Your task to perform on an android device: visit the assistant section in the google photos Image 0: 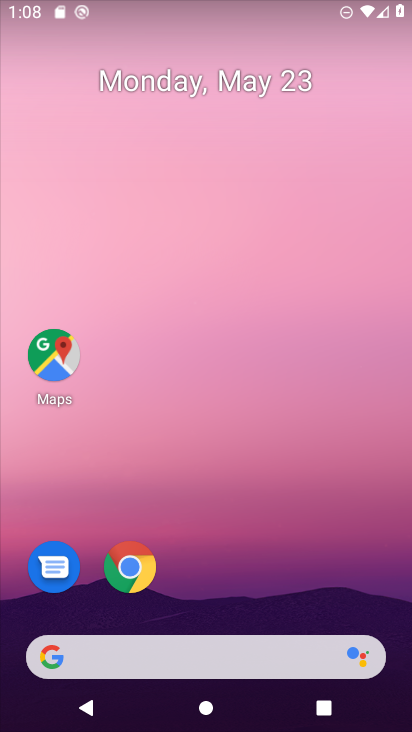
Step 0: press home button
Your task to perform on an android device: visit the assistant section in the google photos Image 1: 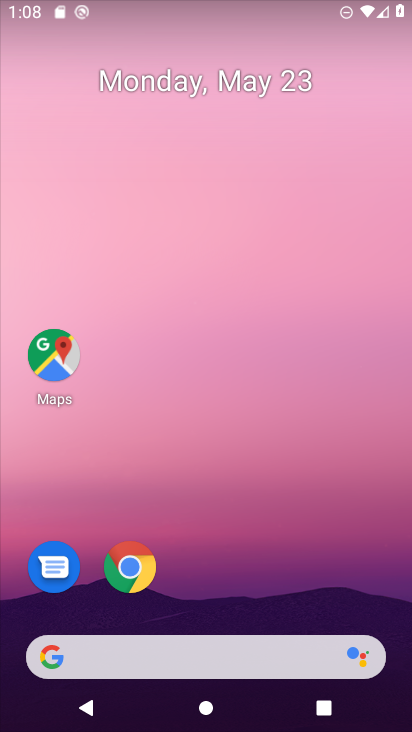
Step 1: drag from (278, 592) to (351, 82)
Your task to perform on an android device: visit the assistant section in the google photos Image 2: 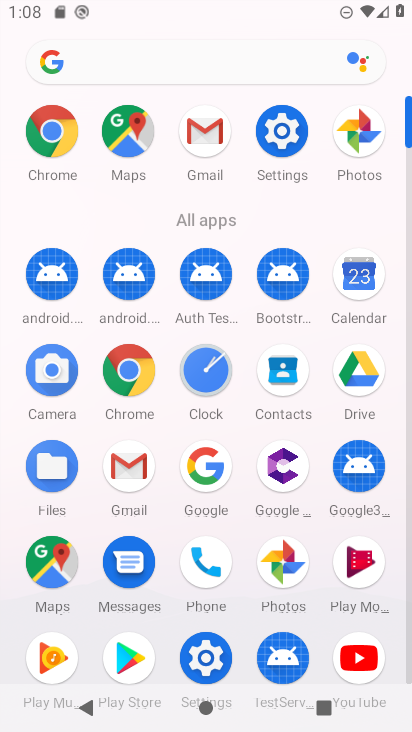
Step 2: click (359, 134)
Your task to perform on an android device: visit the assistant section in the google photos Image 3: 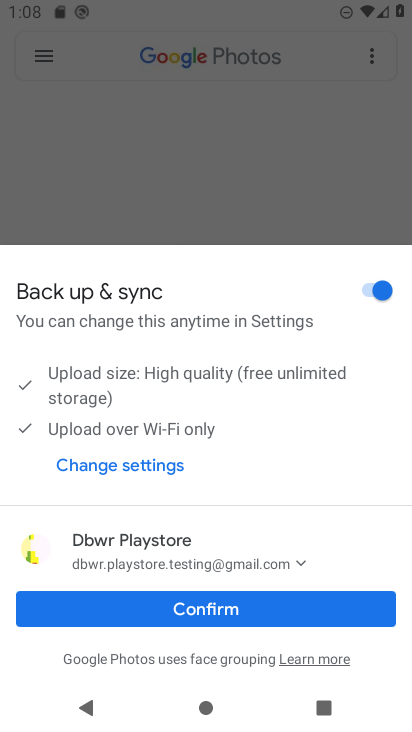
Step 3: click (357, 600)
Your task to perform on an android device: visit the assistant section in the google photos Image 4: 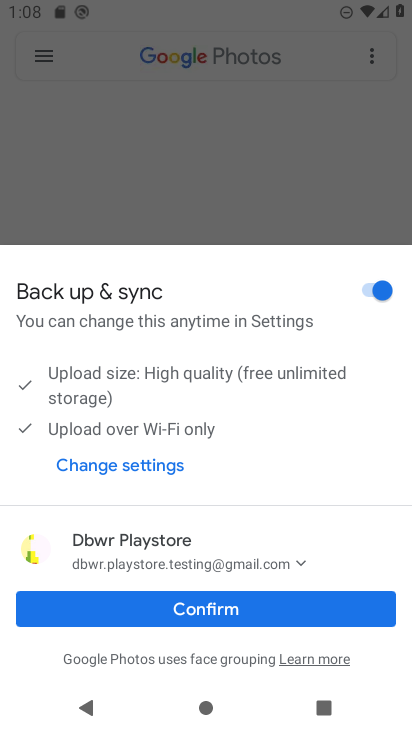
Step 4: click (229, 601)
Your task to perform on an android device: visit the assistant section in the google photos Image 5: 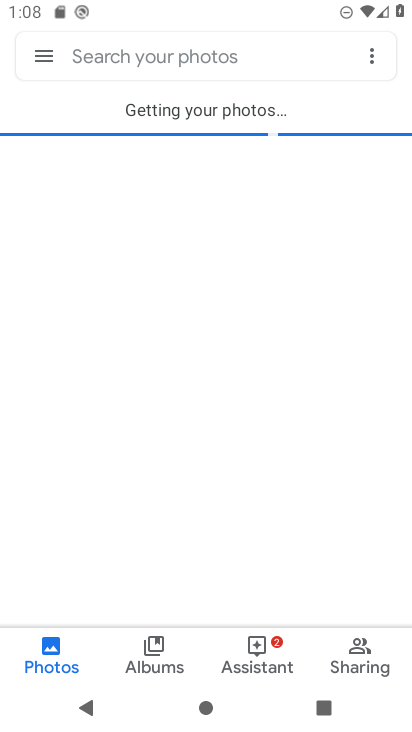
Step 5: click (263, 667)
Your task to perform on an android device: visit the assistant section in the google photos Image 6: 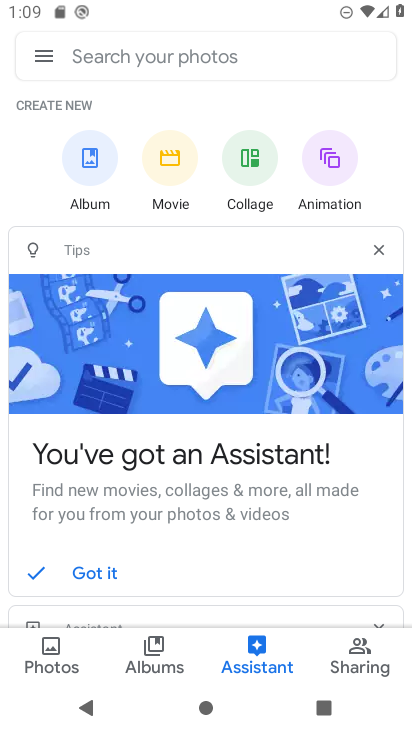
Step 6: task complete